Your task to perform on an android device: Show me popular videos on Youtube Image 0: 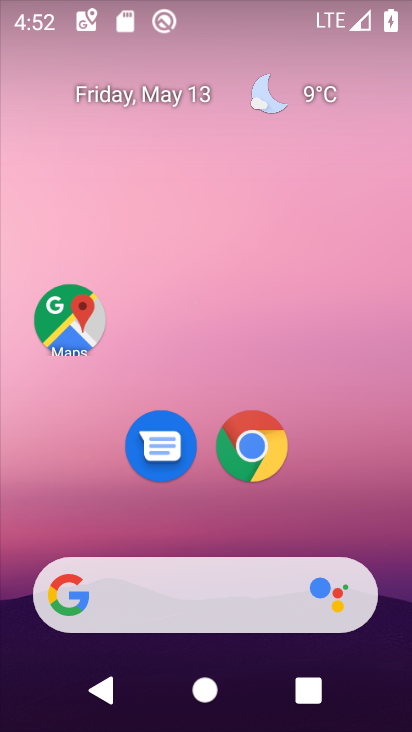
Step 0: drag from (225, 507) to (245, 7)
Your task to perform on an android device: Show me popular videos on Youtube Image 1: 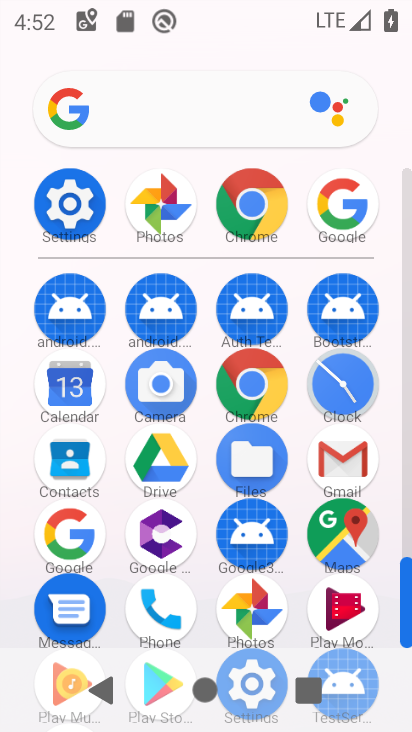
Step 1: drag from (303, 576) to (305, 161)
Your task to perform on an android device: Show me popular videos on Youtube Image 2: 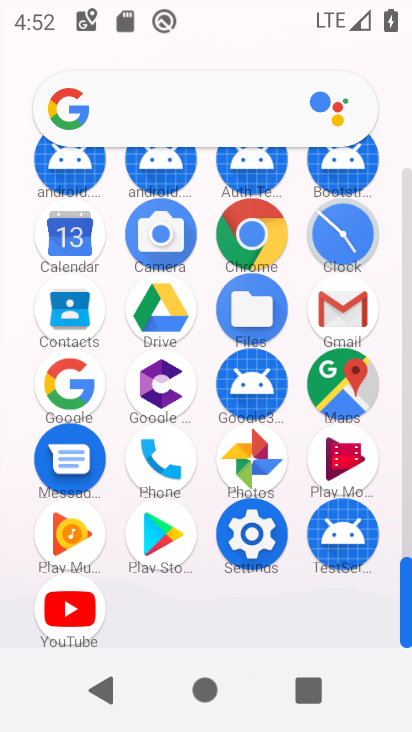
Step 2: click (65, 604)
Your task to perform on an android device: Show me popular videos on Youtube Image 3: 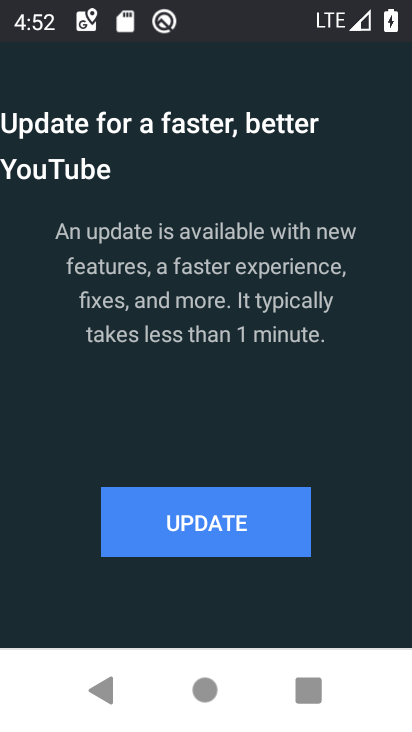
Step 3: click (236, 546)
Your task to perform on an android device: Show me popular videos on Youtube Image 4: 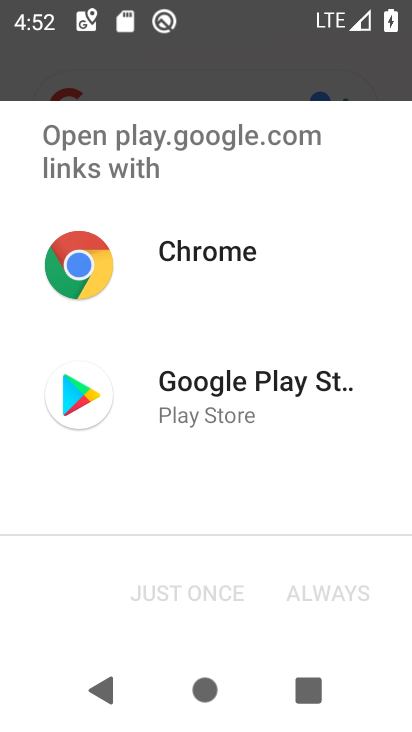
Step 4: click (241, 360)
Your task to perform on an android device: Show me popular videos on Youtube Image 5: 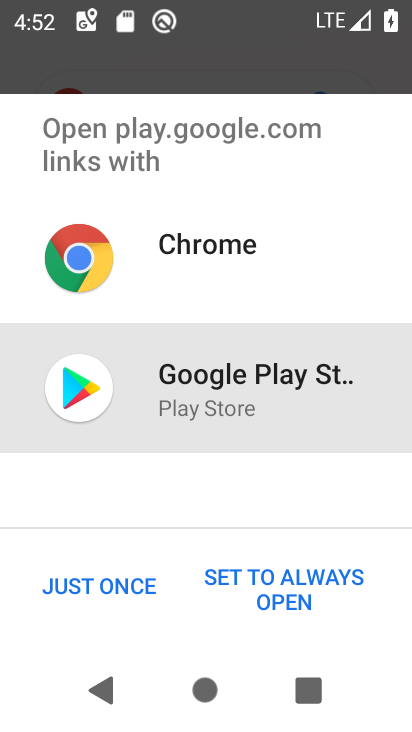
Step 5: click (131, 571)
Your task to perform on an android device: Show me popular videos on Youtube Image 6: 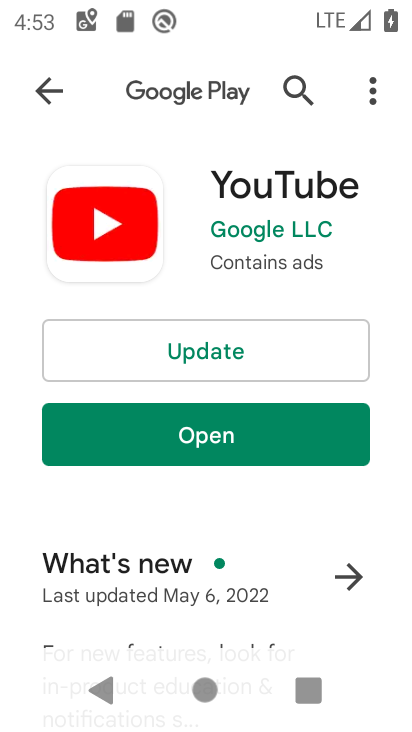
Step 6: click (186, 342)
Your task to perform on an android device: Show me popular videos on Youtube Image 7: 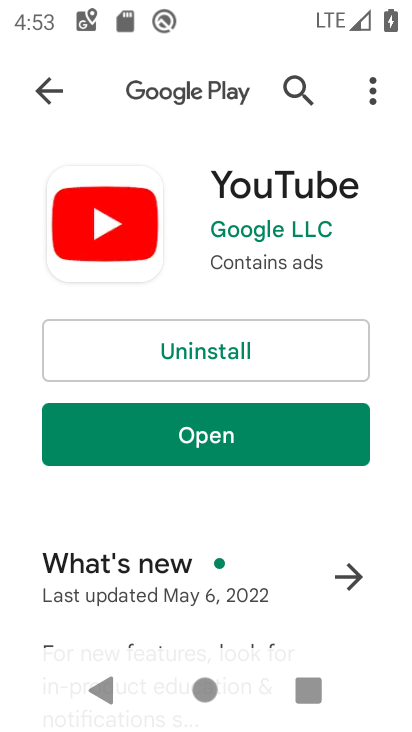
Step 7: click (234, 432)
Your task to perform on an android device: Show me popular videos on Youtube Image 8: 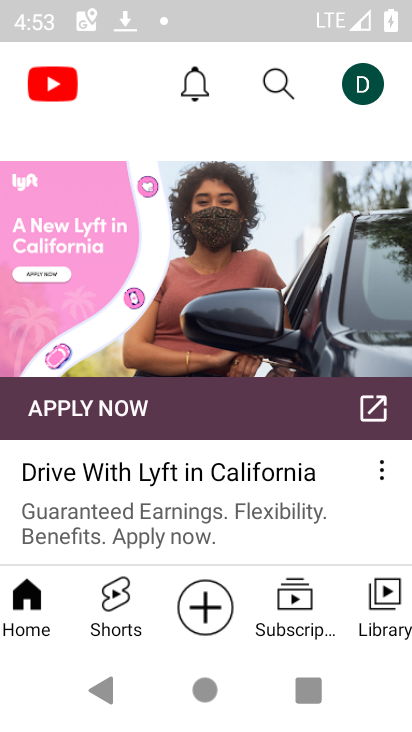
Step 8: drag from (70, 185) to (125, 548)
Your task to perform on an android device: Show me popular videos on Youtube Image 9: 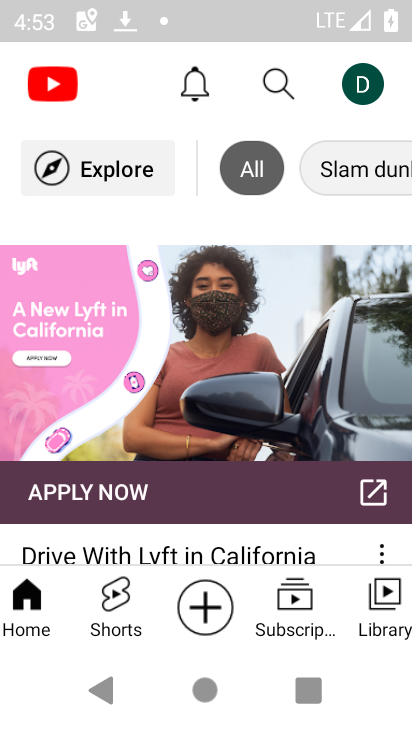
Step 9: click (86, 155)
Your task to perform on an android device: Show me popular videos on Youtube Image 10: 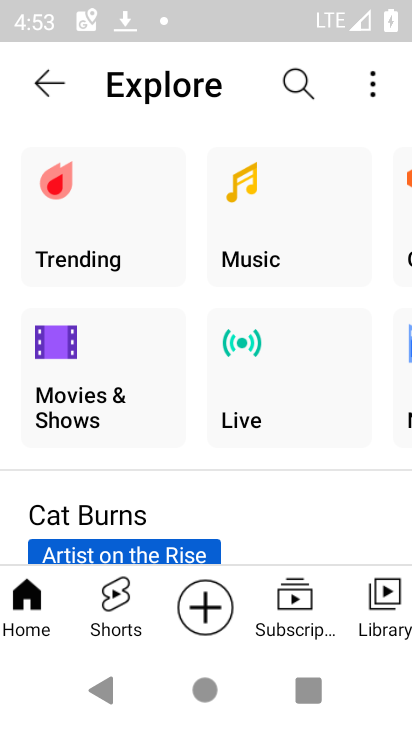
Step 10: click (17, 240)
Your task to perform on an android device: Show me popular videos on Youtube Image 11: 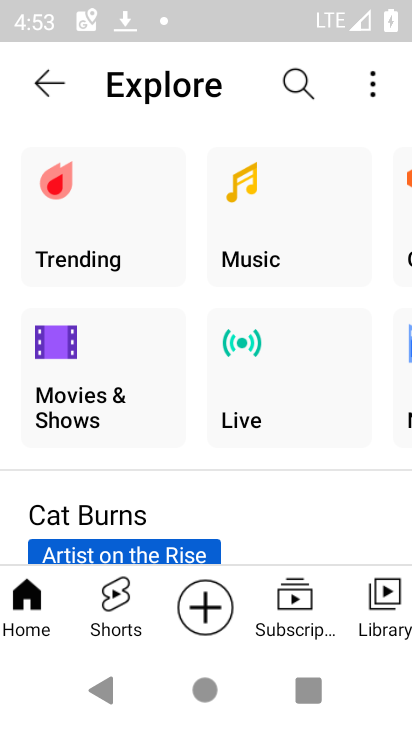
Step 11: click (37, 239)
Your task to perform on an android device: Show me popular videos on Youtube Image 12: 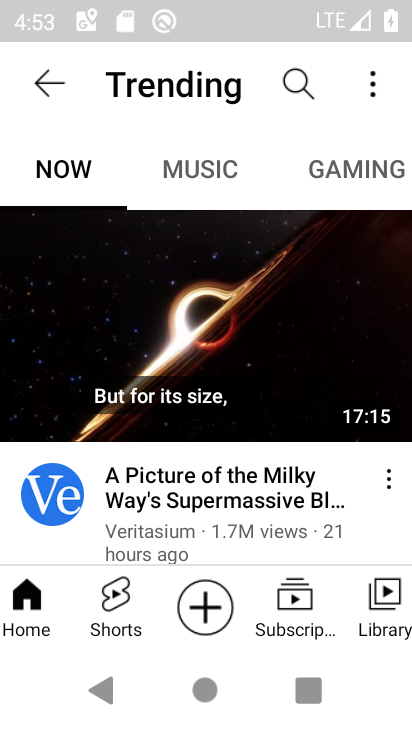
Step 12: task complete